Your task to perform on an android device: Show me popular videos on Youtube Image 0: 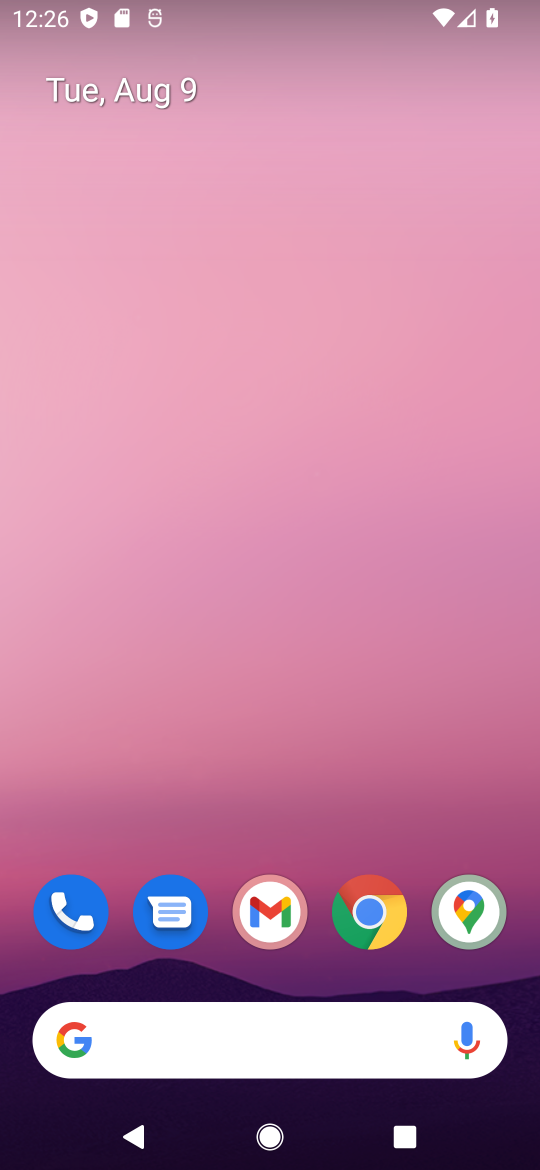
Step 0: drag from (270, 689) to (229, 307)
Your task to perform on an android device: Show me popular videos on Youtube Image 1: 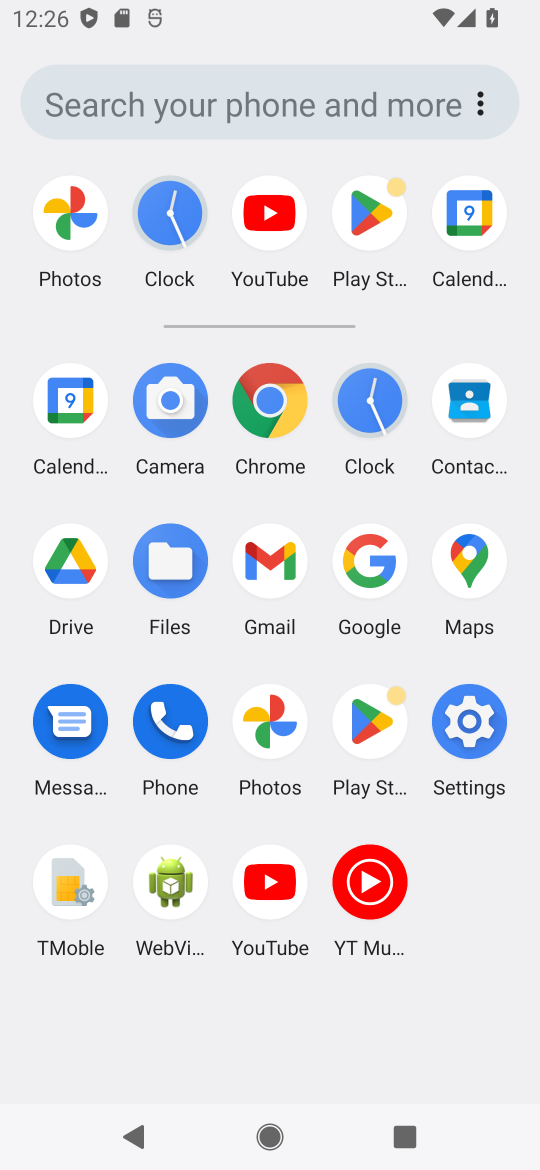
Step 1: click (261, 878)
Your task to perform on an android device: Show me popular videos on Youtube Image 2: 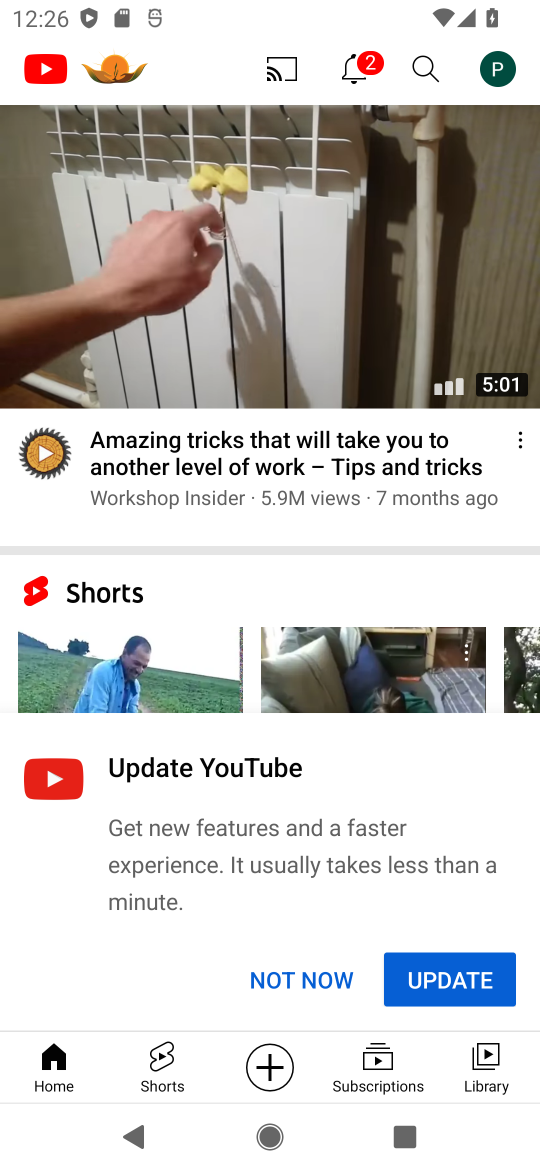
Step 2: click (286, 982)
Your task to perform on an android device: Show me popular videos on Youtube Image 3: 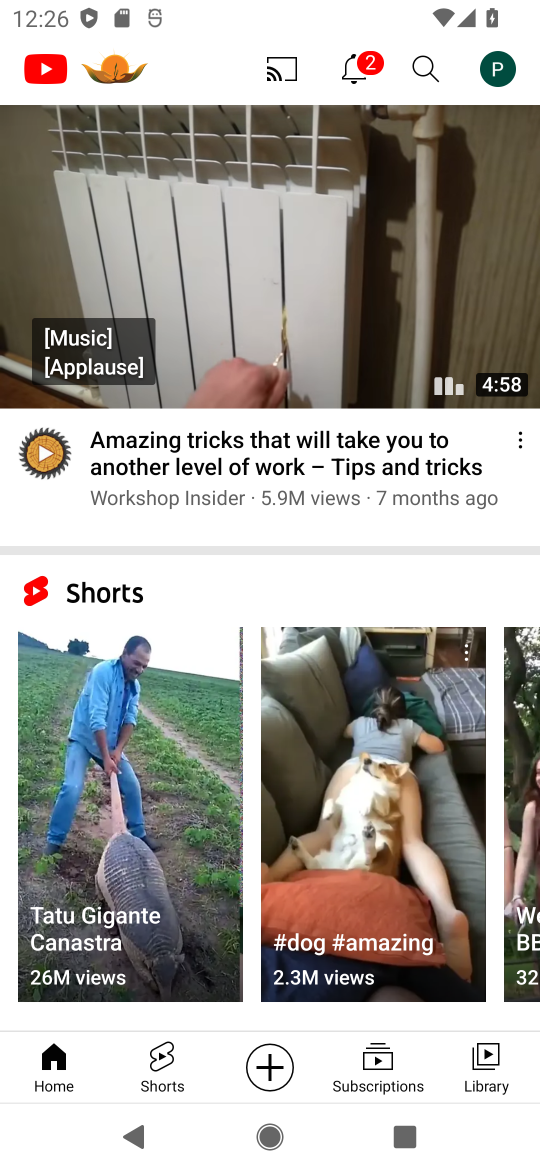
Step 3: task complete